Your task to perform on an android device: Open battery settings Image 0: 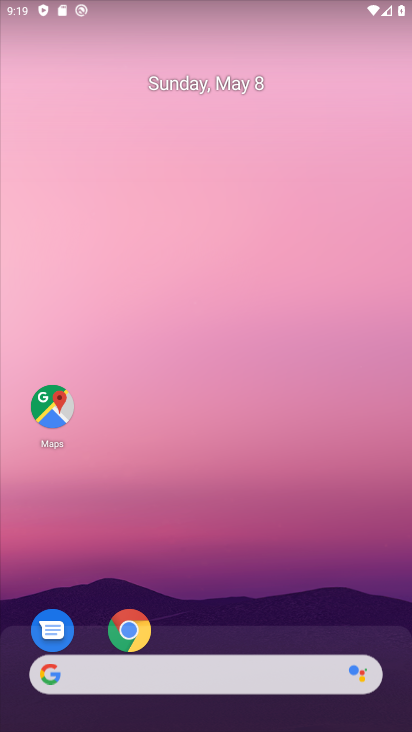
Step 0: drag from (296, 568) to (289, 0)
Your task to perform on an android device: Open battery settings Image 1: 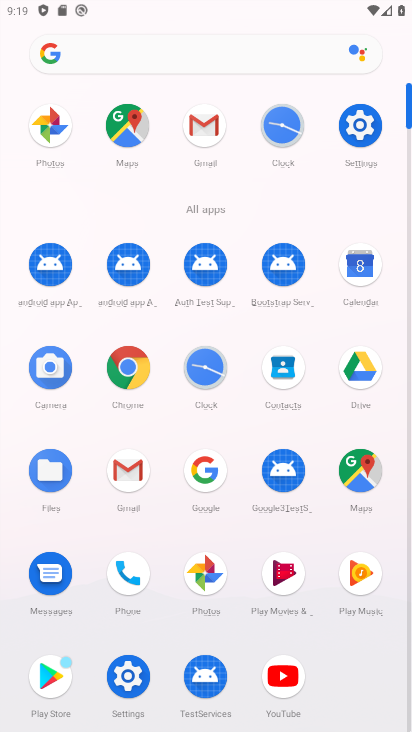
Step 1: click (357, 137)
Your task to perform on an android device: Open battery settings Image 2: 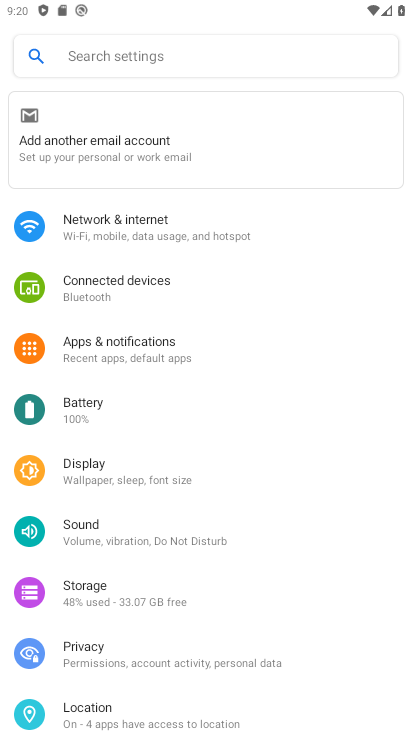
Step 2: click (124, 415)
Your task to perform on an android device: Open battery settings Image 3: 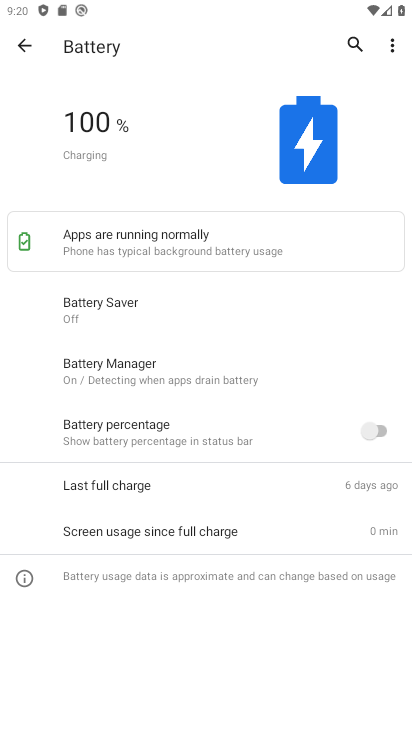
Step 3: task complete